Your task to perform on an android device: Open the calendar and show me this week's events? Image 0: 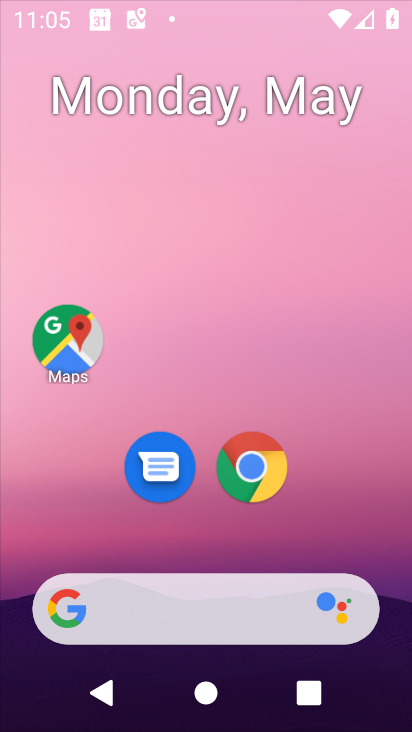
Step 0: drag from (185, 81) to (199, 15)
Your task to perform on an android device: Open the calendar and show me this week's events? Image 1: 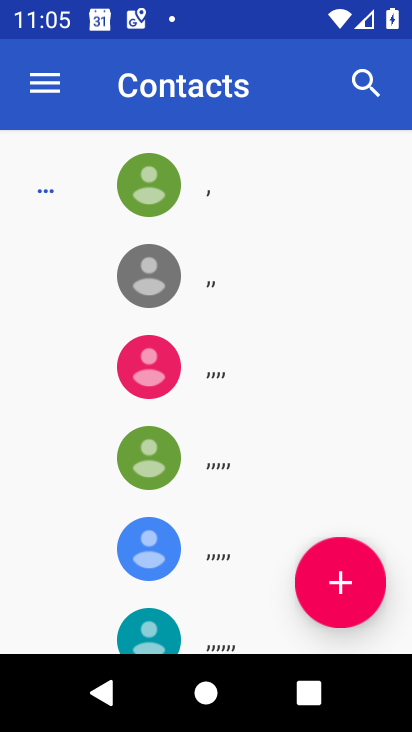
Step 1: press back button
Your task to perform on an android device: Open the calendar and show me this week's events? Image 2: 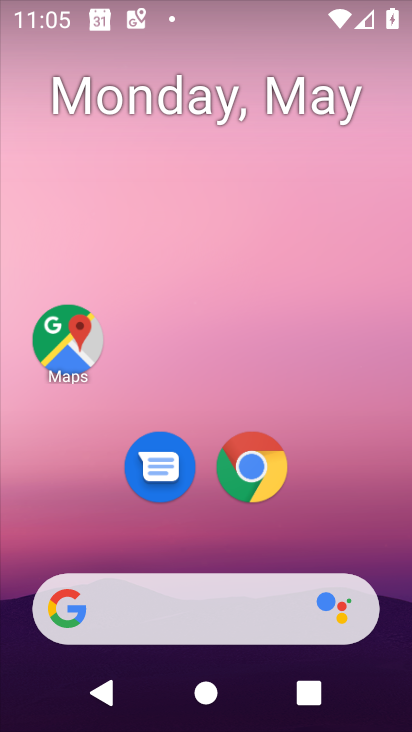
Step 2: drag from (370, 547) to (209, 53)
Your task to perform on an android device: Open the calendar and show me this week's events? Image 3: 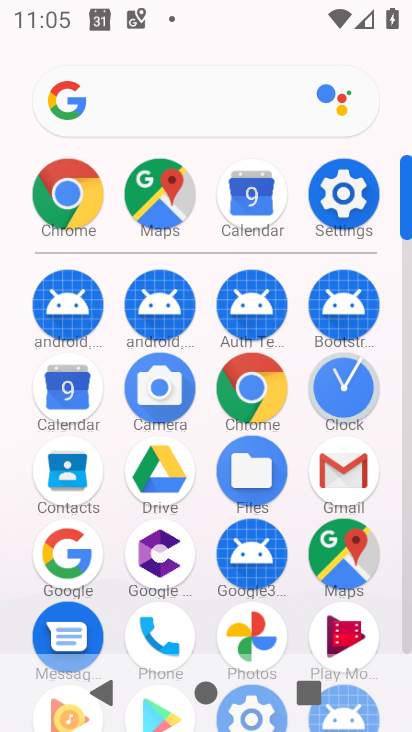
Step 3: drag from (284, 452) to (182, 18)
Your task to perform on an android device: Open the calendar and show me this week's events? Image 4: 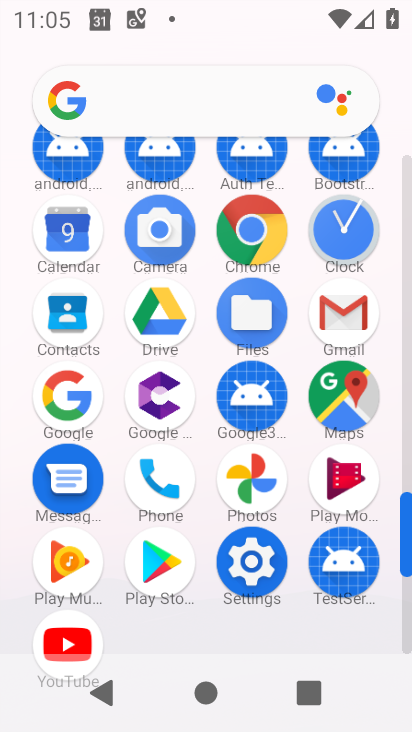
Step 4: click (59, 241)
Your task to perform on an android device: Open the calendar and show me this week's events? Image 5: 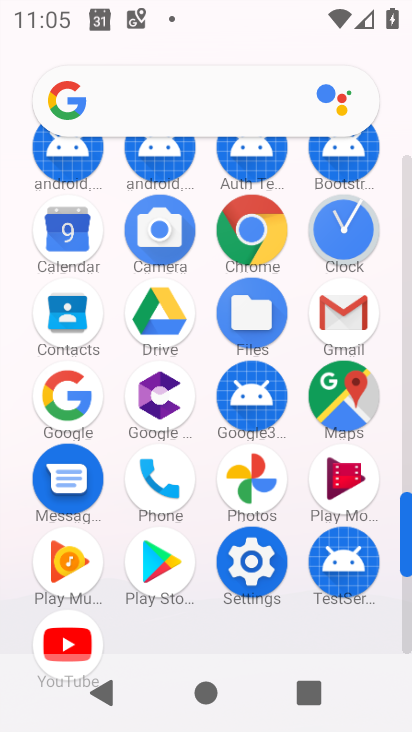
Step 5: click (59, 239)
Your task to perform on an android device: Open the calendar and show me this week's events? Image 6: 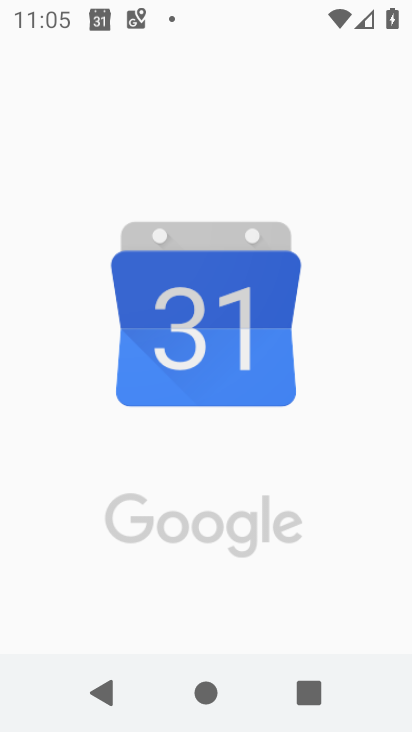
Step 6: click (62, 238)
Your task to perform on an android device: Open the calendar and show me this week's events? Image 7: 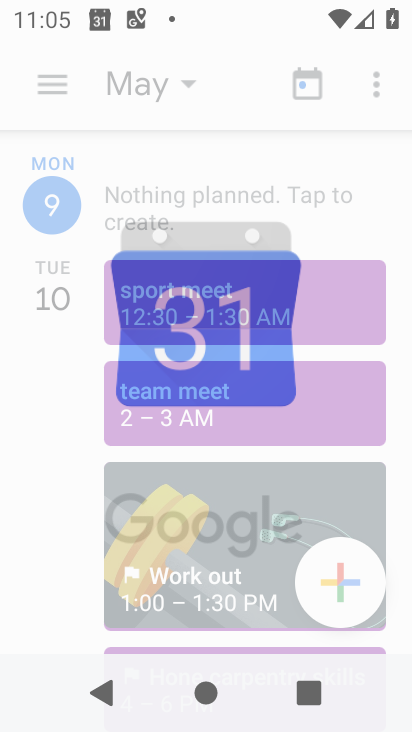
Step 7: click (62, 238)
Your task to perform on an android device: Open the calendar and show me this week's events? Image 8: 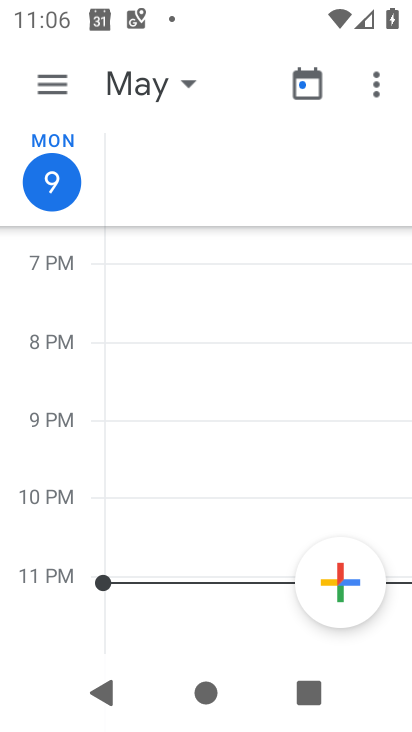
Step 8: click (188, 80)
Your task to perform on an android device: Open the calendar and show me this week's events? Image 9: 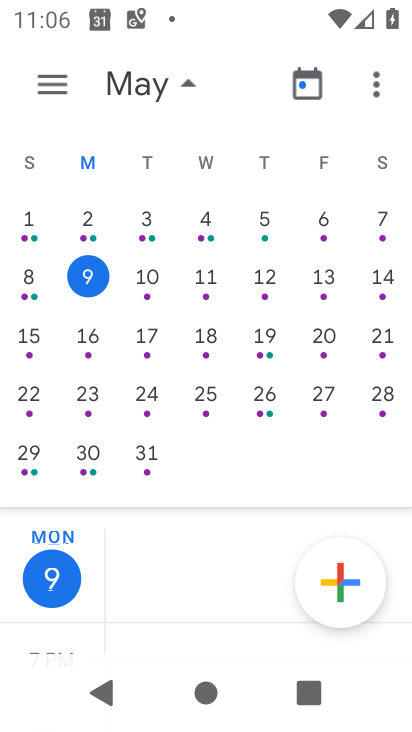
Step 9: click (313, 274)
Your task to perform on an android device: Open the calendar and show me this week's events? Image 10: 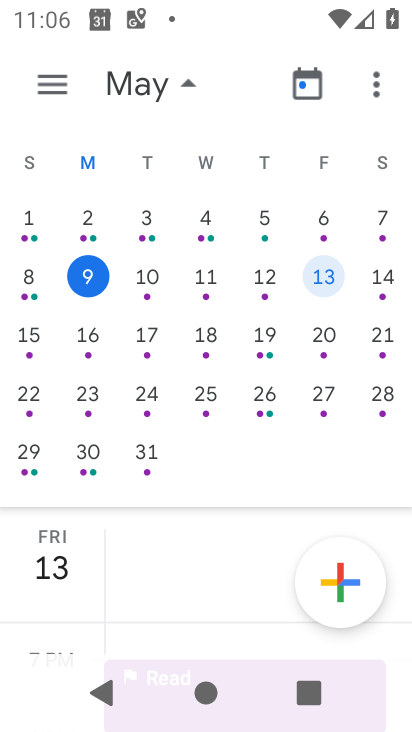
Step 10: click (312, 276)
Your task to perform on an android device: Open the calendar and show me this week's events? Image 11: 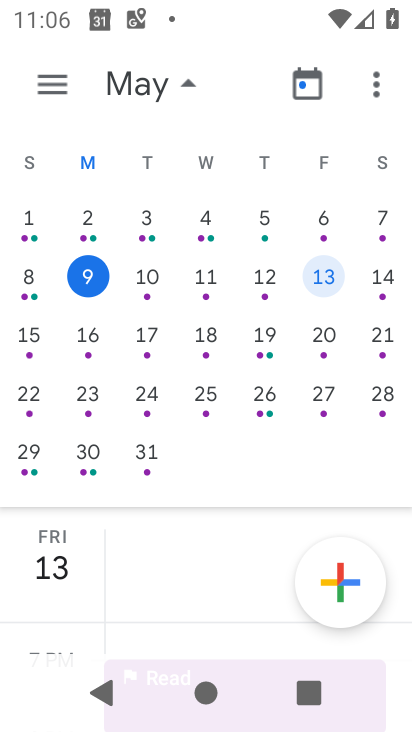
Step 11: click (314, 277)
Your task to perform on an android device: Open the calendar and show me this week's events? Image 12: 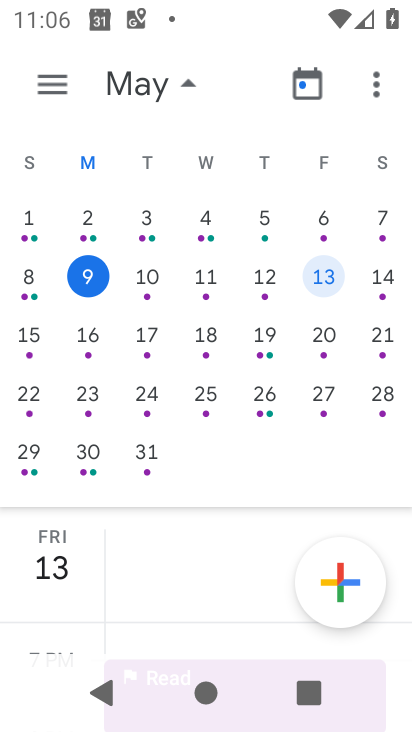
Step 12: task complete